Your task to perform on an android device: Go to privacy settings Image 0: 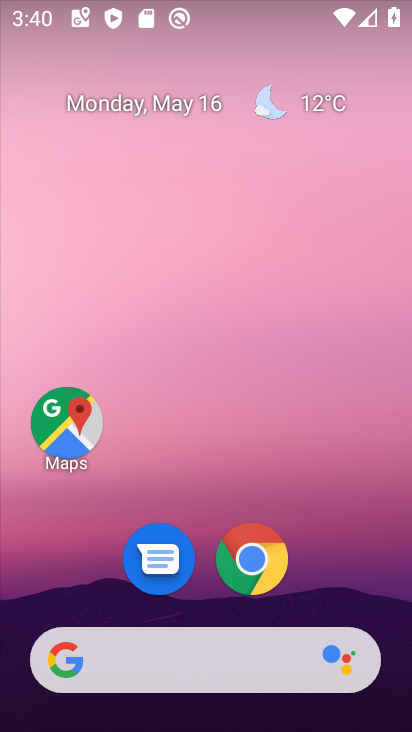
Step 0: drag from (335, 562) to (328, 202)
Your task to perform on an android device: Go to privacy settings Image 1: 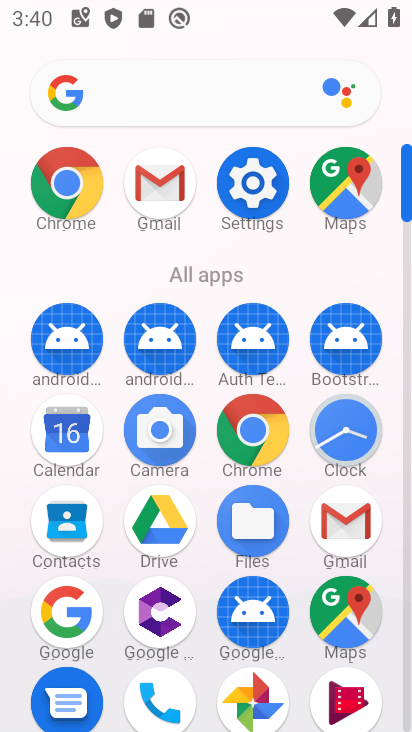
Step 1: click (247, 179)
Your task to perform on an android device: Go to privacy settings Image 2: 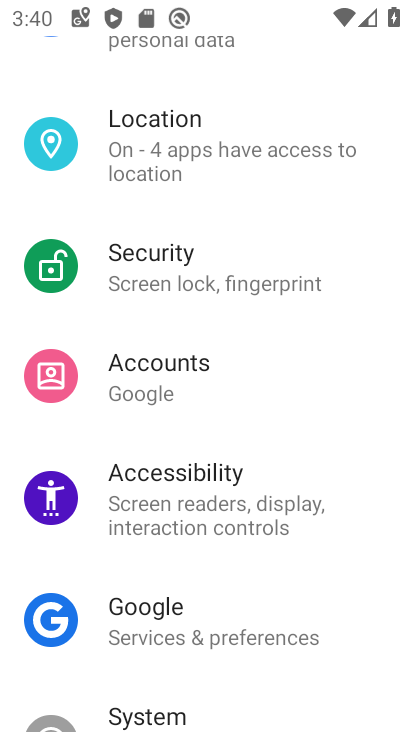
Step 2: drag from (182, 161) to (163, 510)
Your task to perform on an android device: Go to privacy settings Image 3: 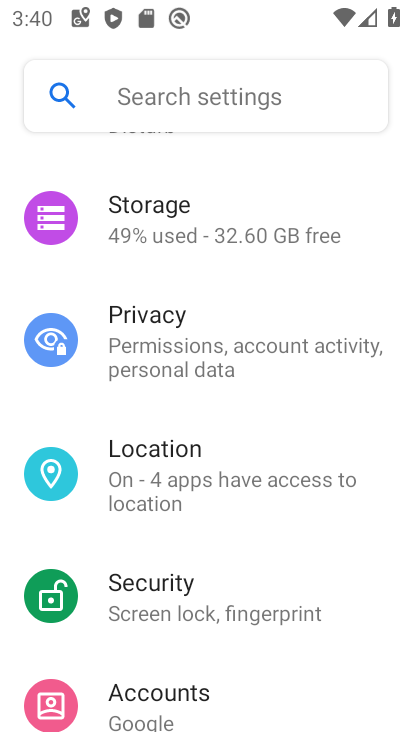
Step 3: click (179, 353)
Your task to perform on an android device: Go to privacy settings Image 4: 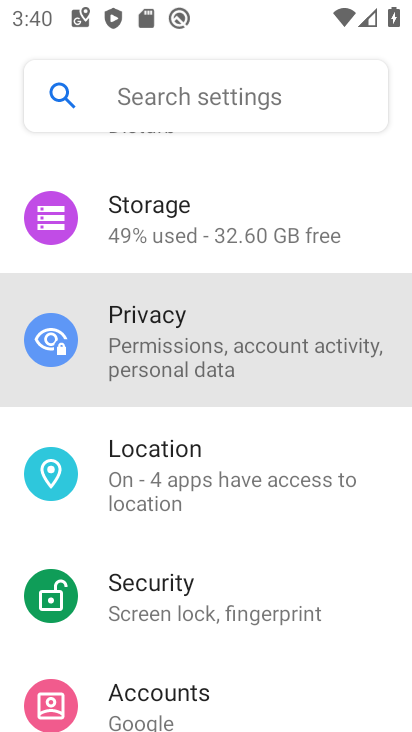
Step 4: task complete